Your task to perform on an android device: Go to accessibility settings Image 0: 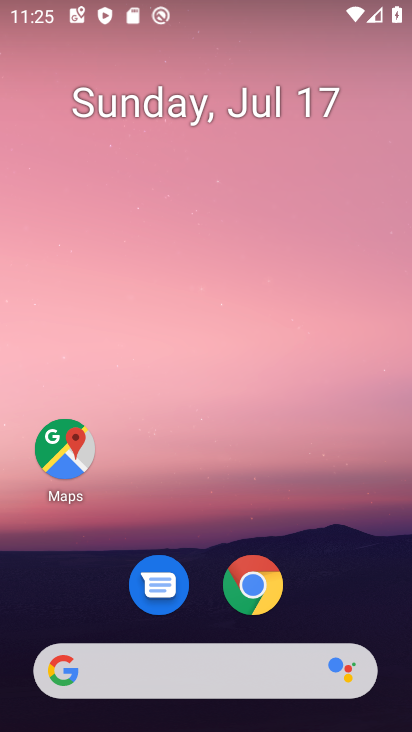
Step 0: drag from (337, 495) to (370, 9)
Your task to perform on an android device: Go to accessibility settings Image 1: 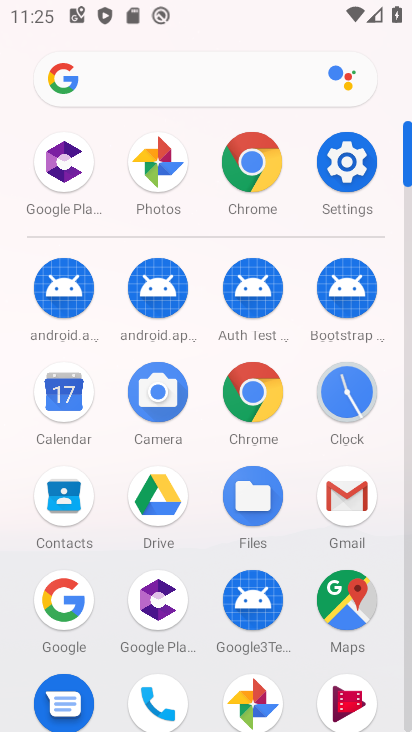
Step 1: click (358, 159)
Your task to perform on an android device: Go to accessibility settings Image 2: 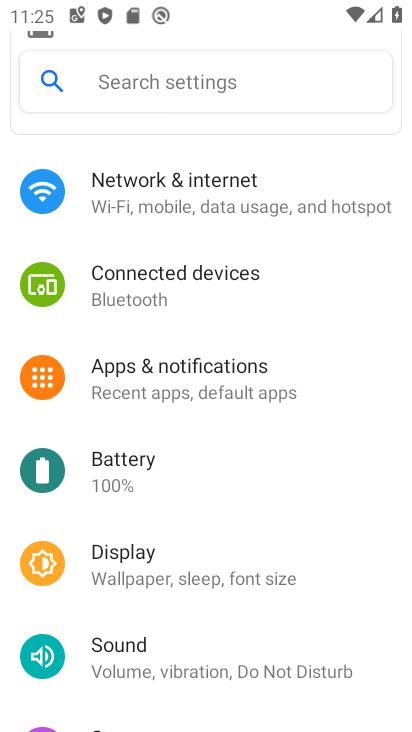
Step 2: drag from (245, 531) to (293, 125)
Your task to perform on an android device: Go to accessibility settings Image 3: 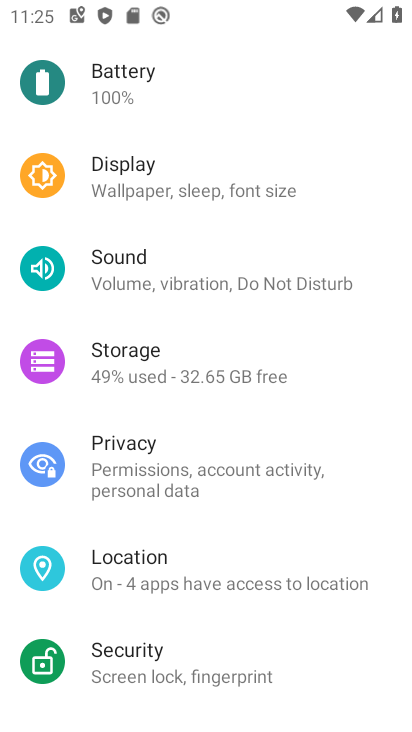
Step 3: drag from (223, 483) to (220, 122)
Your task to perform on an android device: Go to accessibility settings Image 4: 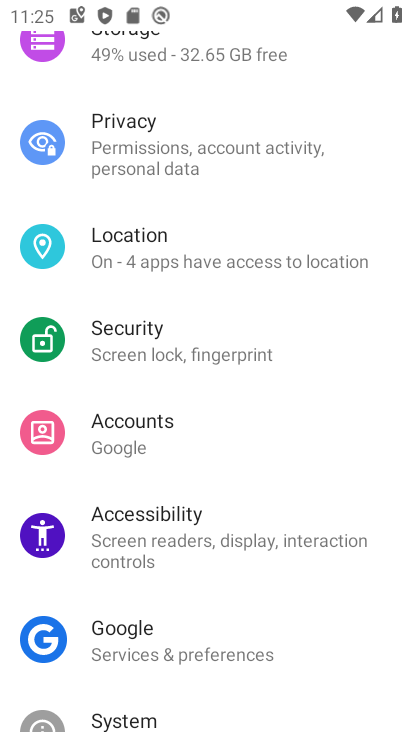
Step 4: click (200, 516)
Your task to perform on an android device: Go to accessibility settings Image 5: 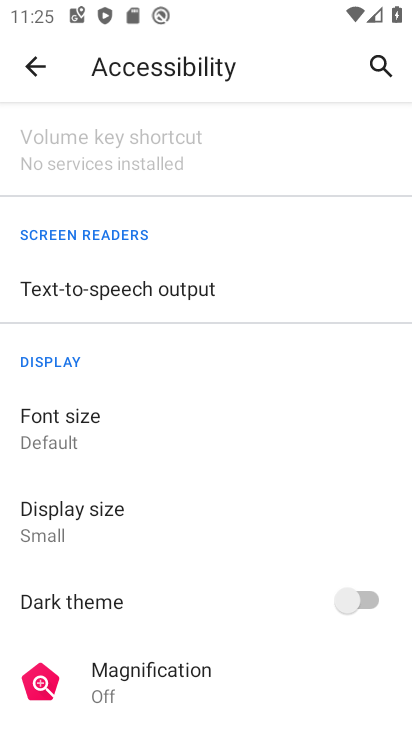
Step 5: task complete